Your task to perform on an android device: Open network settings Image 0: 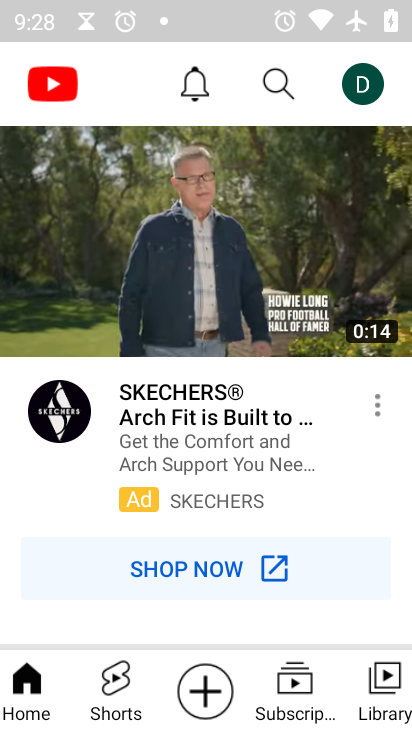
Step 0: press back button
Your task to perform on an android device: Open network settings Image 1: 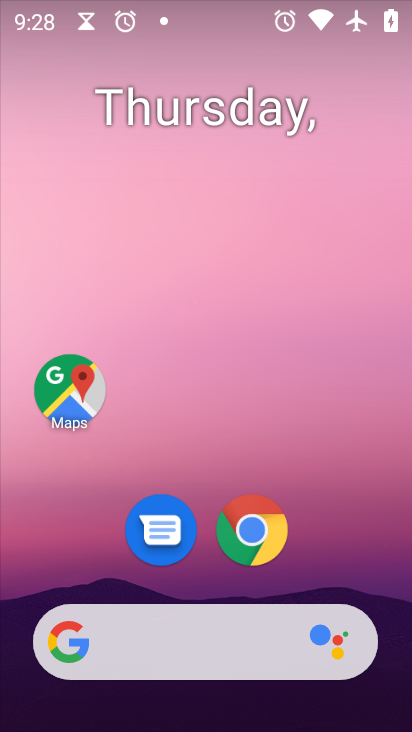
Step 1: drag from (326, 536) to (238, 6)
Your task to perform on an android device: Open network settings Image 2: 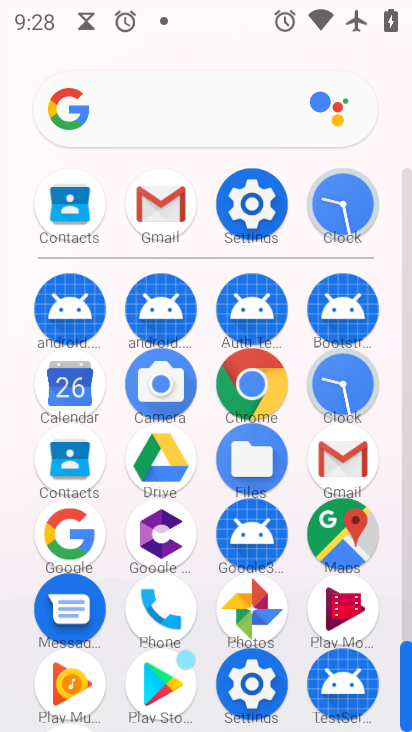
Step 2: click (249, 203)
Your task to perform on an android device: Open network settings Image 3: 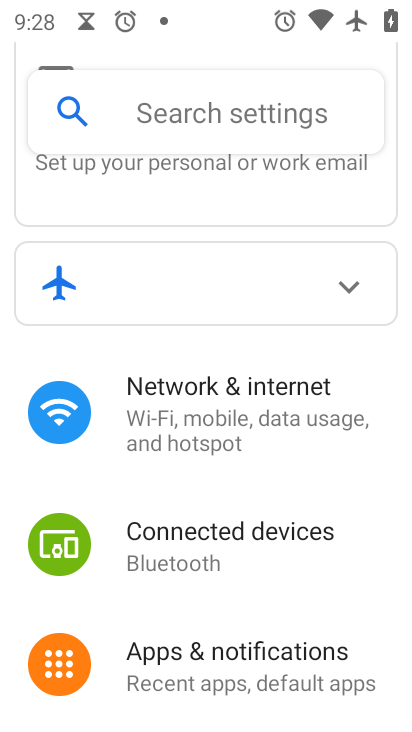
Step 3: click (231, 429)
Your task to perform on an android device: Open network settings Image 4: 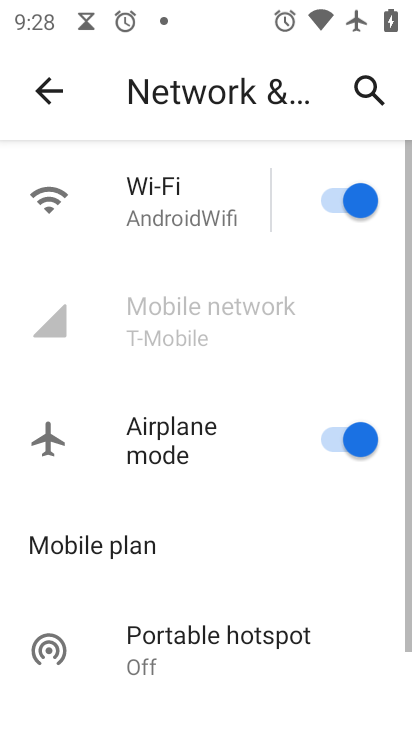
Step 4: drag from (178, 587) to (168, 162)
Your task to perform on an android device: Open network settings Image 5: 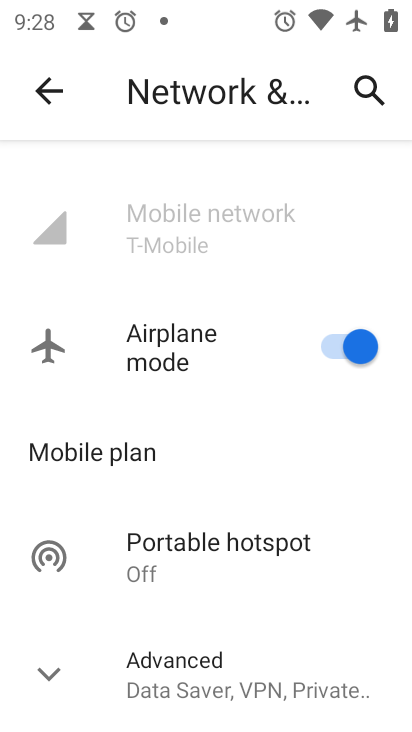
Step 5: click (52, 675)
Your task to perform on an android device: Open network settings Image 6: 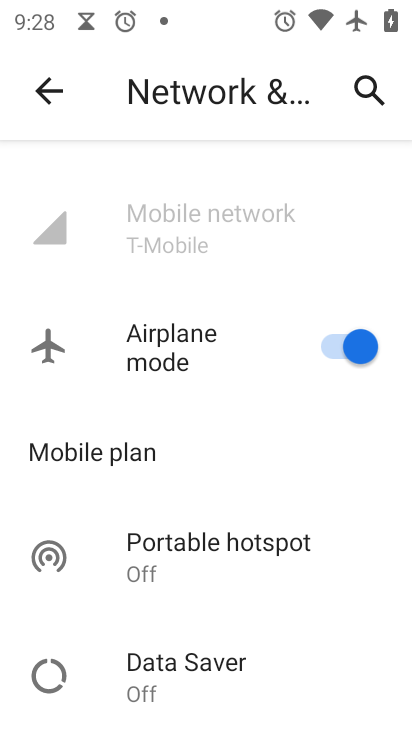
Step 6: task complete